Your task to perform on an android device: Is it going to rain today? Image 0: 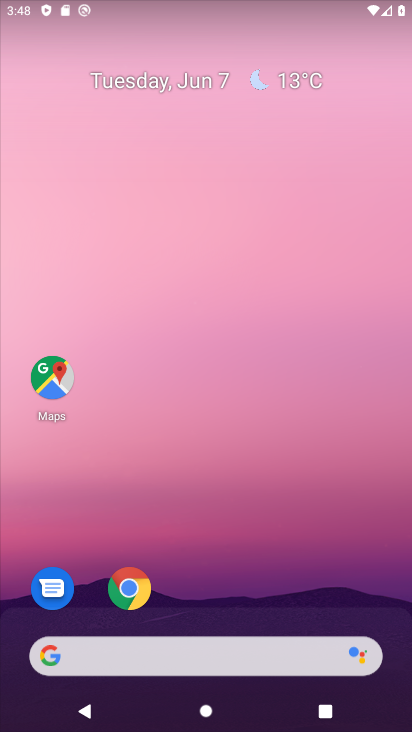
Step 0: click (293, 85)
Your task to perform on an android device: Is it going to rain today? Image 1: 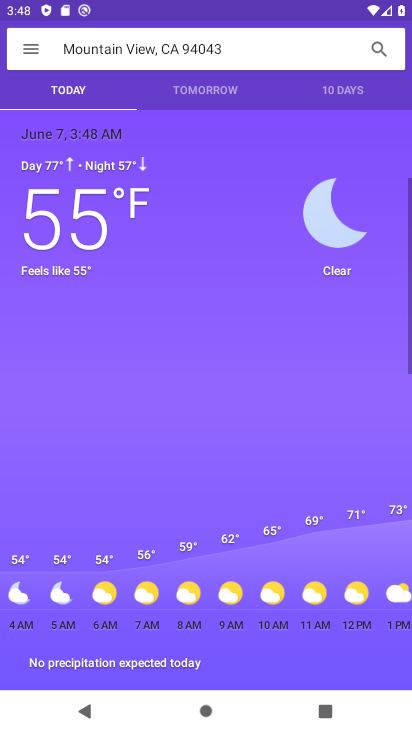
Step 1: task complete